Your task to perform on an android device: Open internet settings Image 0: 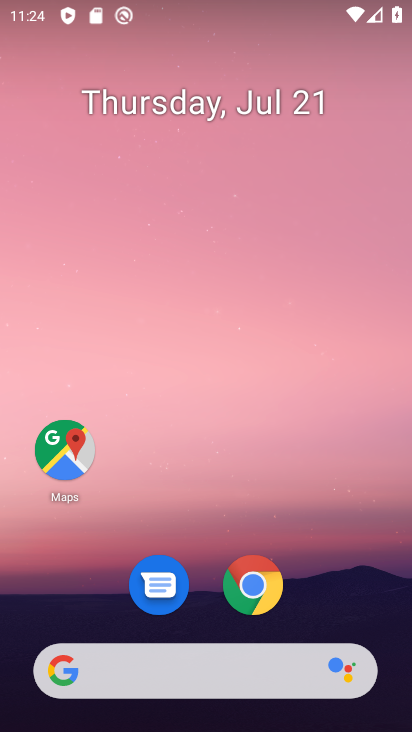
Step 0: drag from (175, 652) to (271, 0)
Your task to perform on an android device: Open internet settings Image 1: 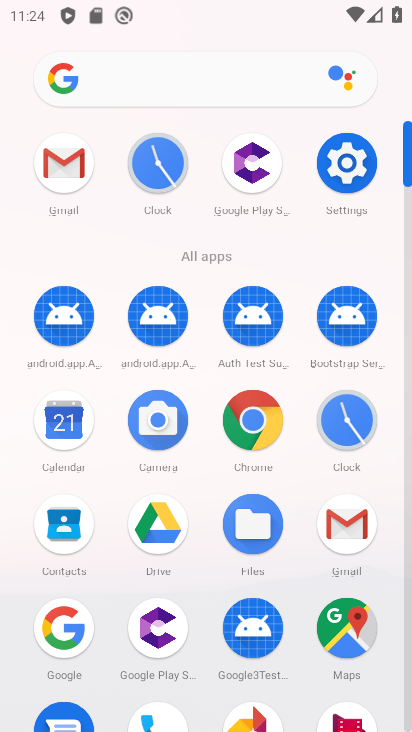
Step 1: drag from (169, 660) to (330, 85)
Your task to perform on an android device: Open internet settings Image 2: 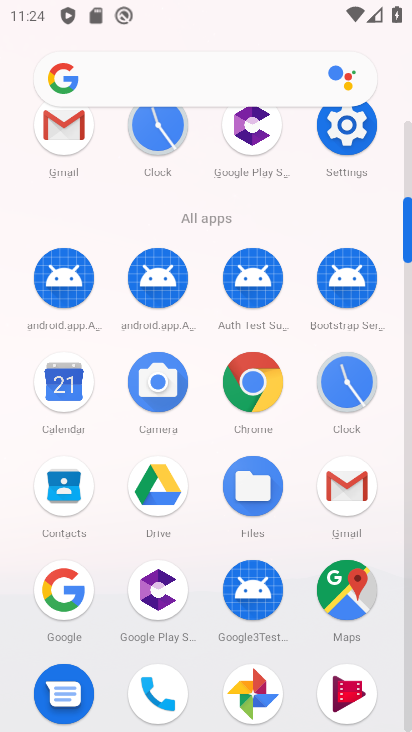
Step 2: click (340, 131)
Your task to perform on an android device: Open internet settings Image 3: 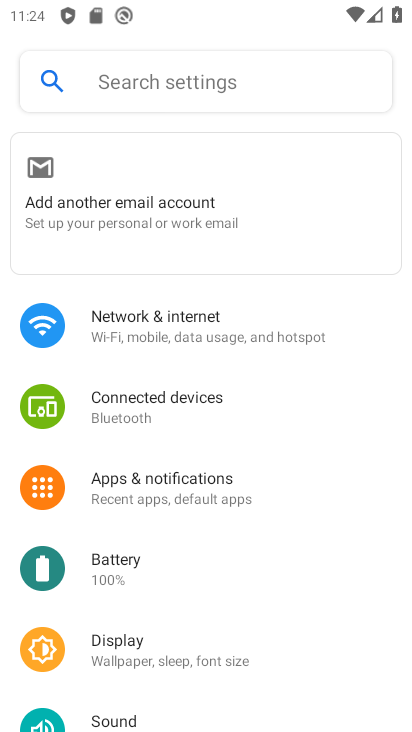
Step 3: click (166, 322)
Your task to perform on an android device: Open internet settings Image 4: 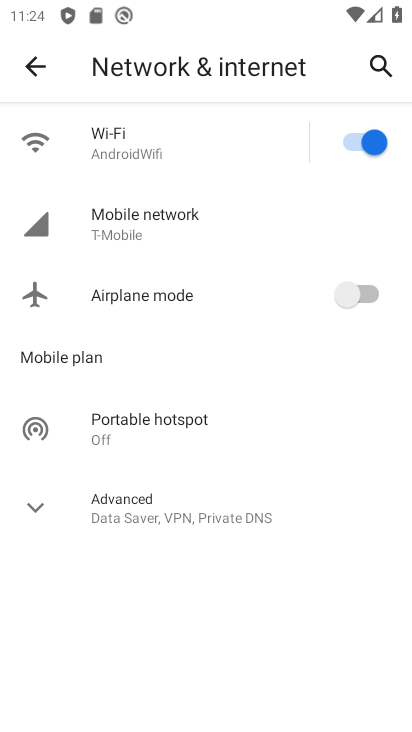
Step 4: task complete